Your task to perform on an android device: open wifi settings Image 0: 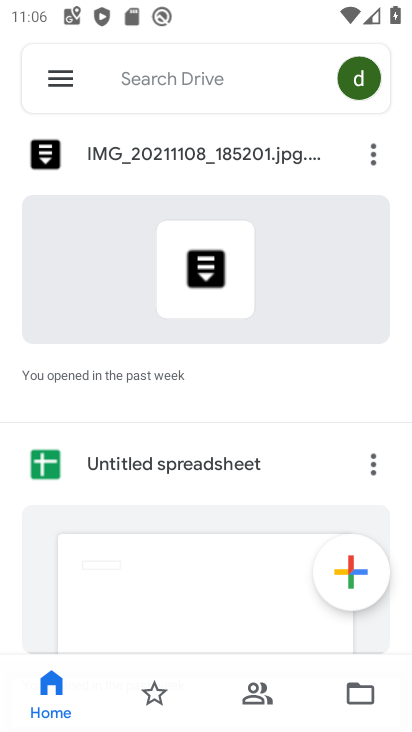
Step 0: press home button
Your task to perform on an android device: open wifi settings Image 1: 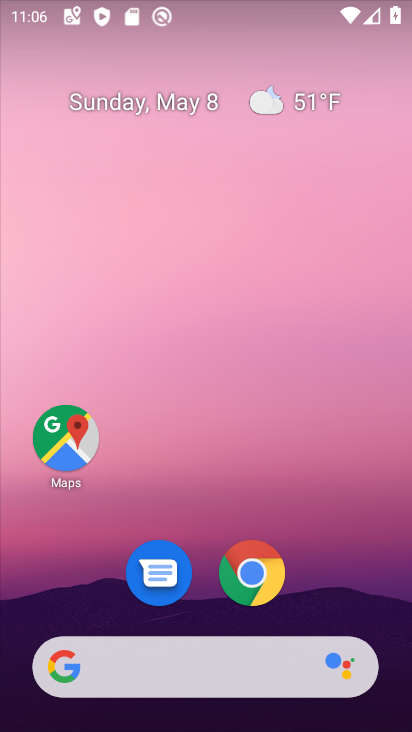
Step 1: drag from (160, 598) to (205, 371)
Your task to perform on an android device: open wifi settings Image 2: 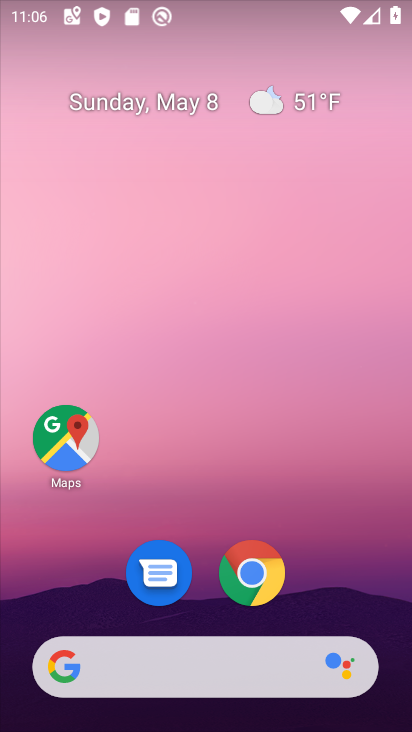
Step 2: click (270, 263)
Your task to perform on an android device: open wifi settings Image 3: 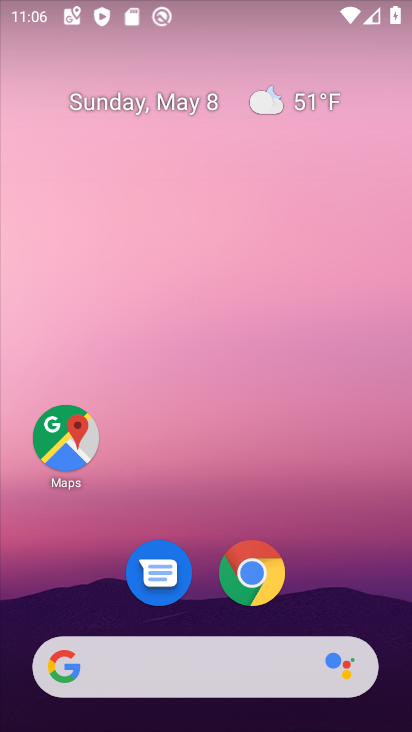
Step 3: drag from (224, 571) to (254, 213)
Your task to perform on an android device: open wifi settings Image 4: 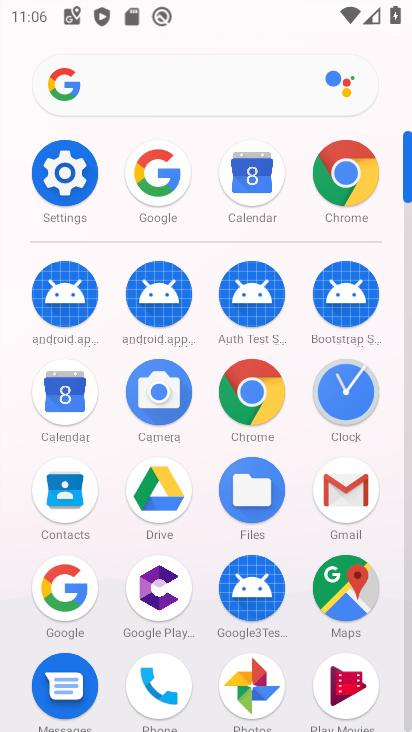
Step 4: click (74, 172)
Your task to perform on an android device: open wifi settings Image 5: 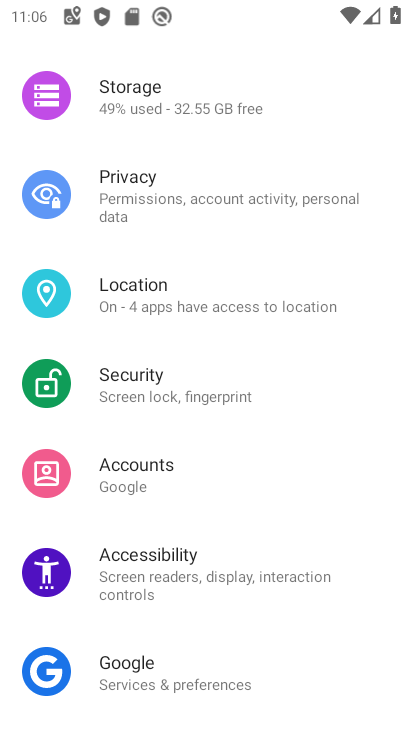
Step 5: drag from (181, 158) to (214, 599)
Your task to perform on an android device: open wifi settings Image 6: 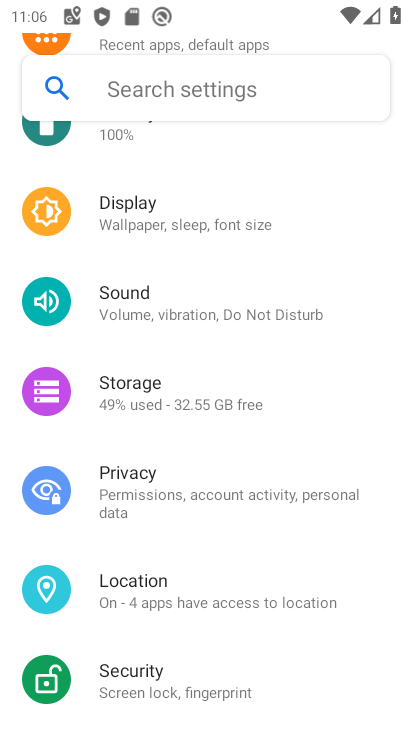
Step 6: drag from (205, 302) to (225, 675)
Your task to perform on an android device: open wifi settings Image 7: 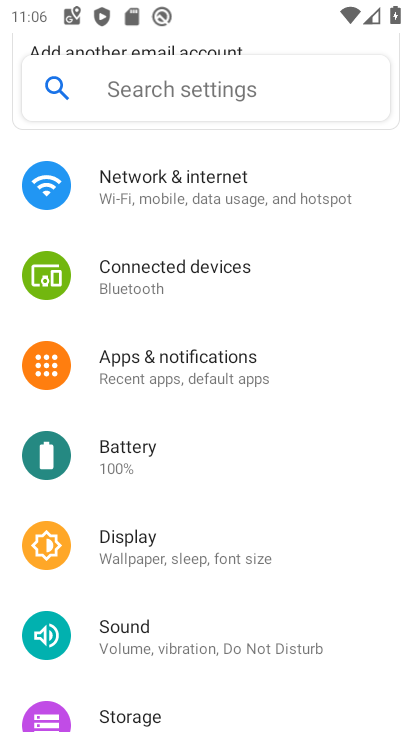
Step 7: click (179, 196)
Your task to perform on an android device: open wifi settings Image 8: 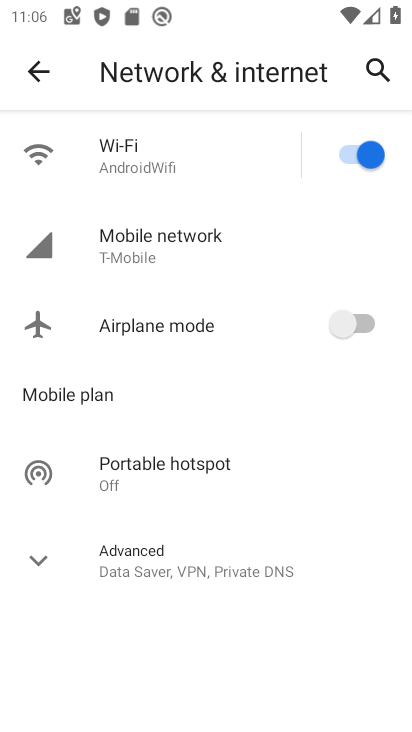
Step 8: click (150, 165)
Your task to perform on an android device: open wifi settings Image 9: 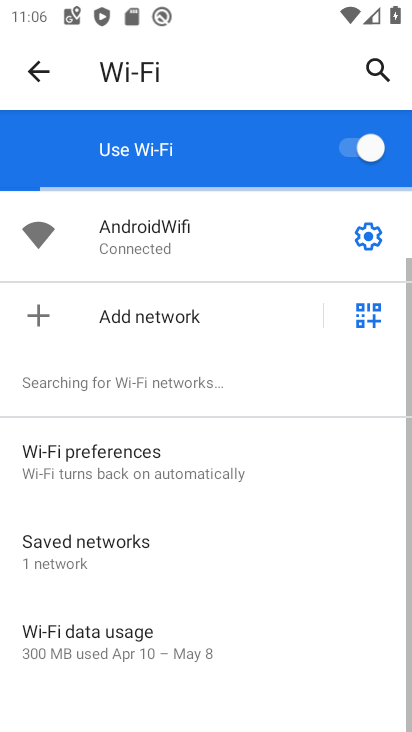
Step 9: click (372, 241)
Your task to perform on an android device: open wifi settings Image 10: 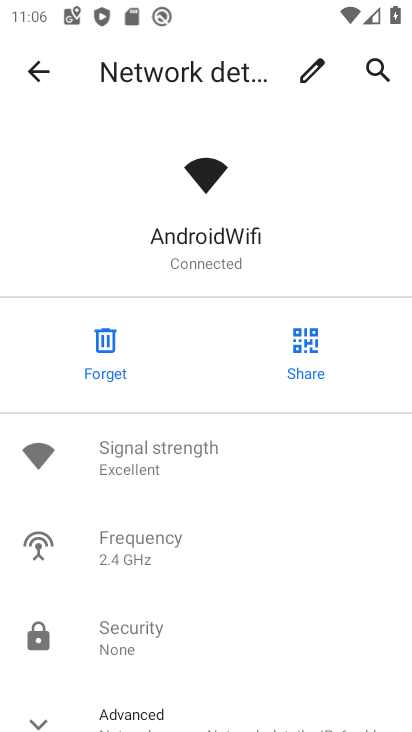
Step 10: task complete